Your task to perform on an android device: open wifi settings Image 0: 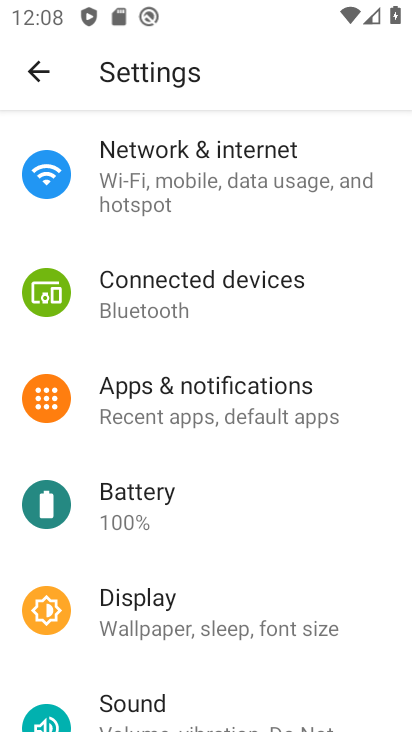
Step 0: task complete